Your task to perform on an android device: turn off improve location accuracy Image 0: 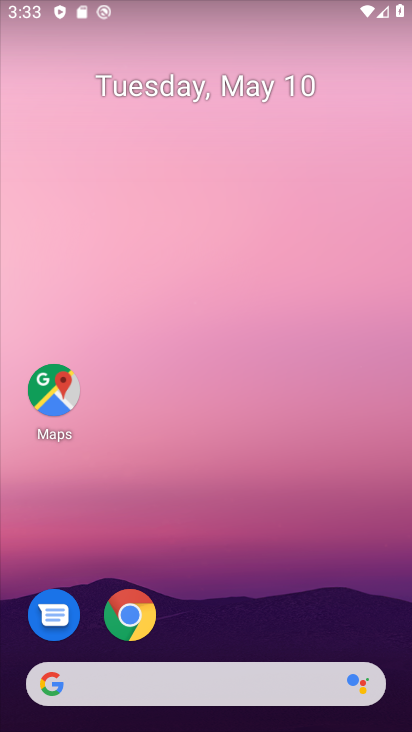
Step 0: drag from (322, 606) to (286, 111)
Your task to perform on an android device: turn off improve location accuracy Image 1: 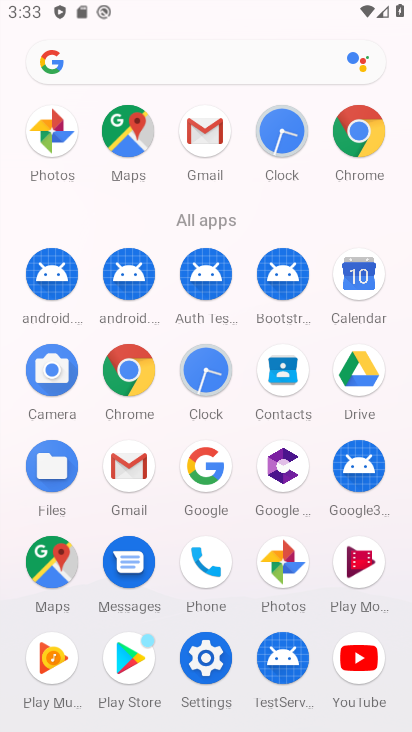
Step 1: click (199, 660)
Your task to perform on an android device: turn off improve location accuracy Image 2: 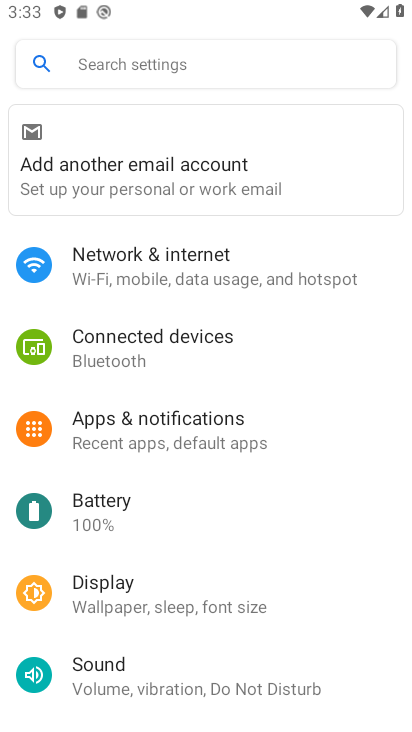
Step 2: drag from (302, 622) to (296, 259)
Your task to perform on an android device: turn off improve location accuracy Image 3: 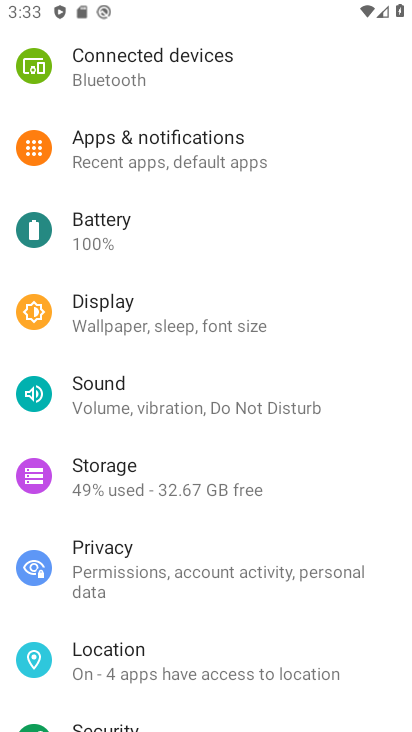
Step 3: click (182, 658)
Your task to perform on an android device: turn off improve location accuracy Image 4: 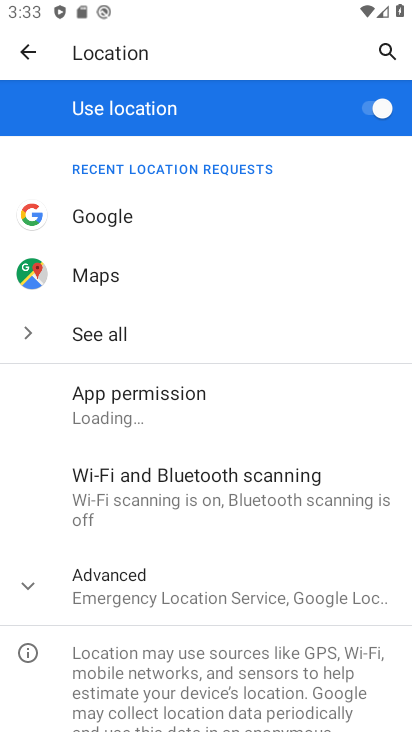
Step 4: drag from (321, 650) to (335, 302)
Your task to perform on an android device: turn off improve location accuracy Image 5: 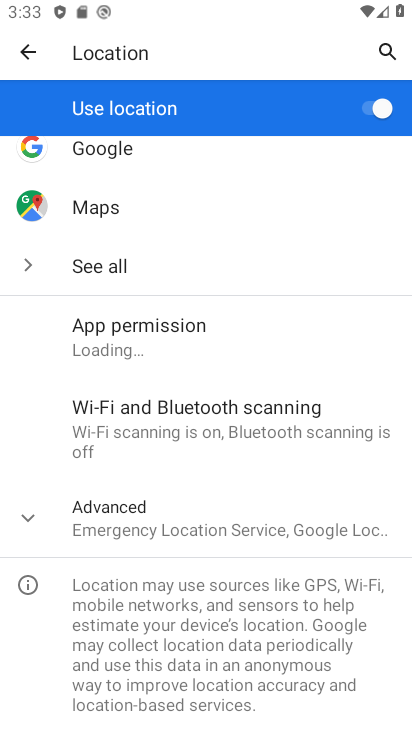
Step 5: click (263, 537)
Your task to perform on an android device: turn off improve location accuracy Image 6: 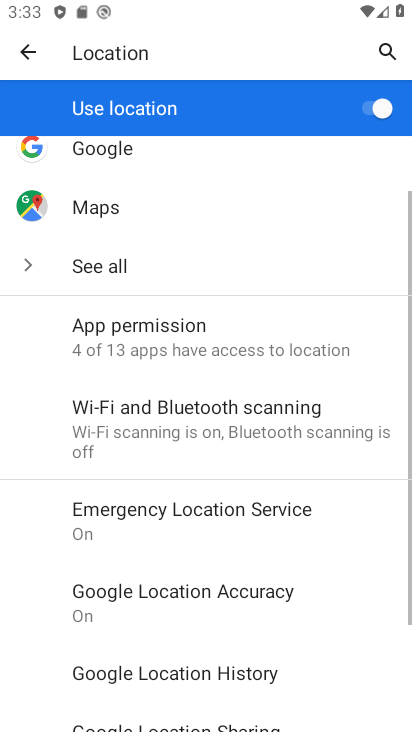
Step 6: drag from (318, 660) to (330, 364)
Your task to perform on an android device: turn off improve location accuracy Image 7: 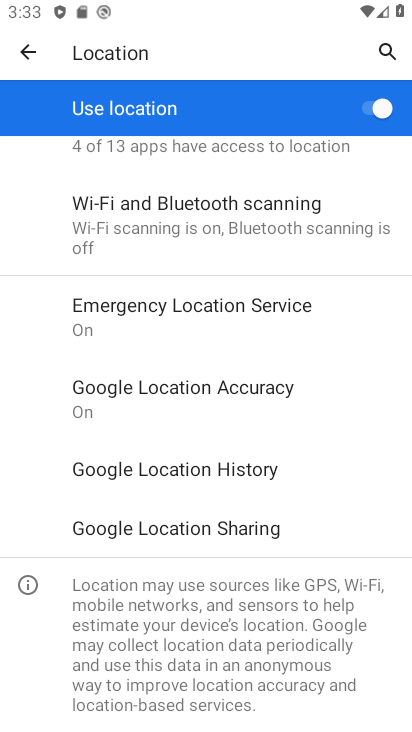
Step 7: click (245, 395)
Your task to perform on an android device: turn off improve location accuracy Image 8: 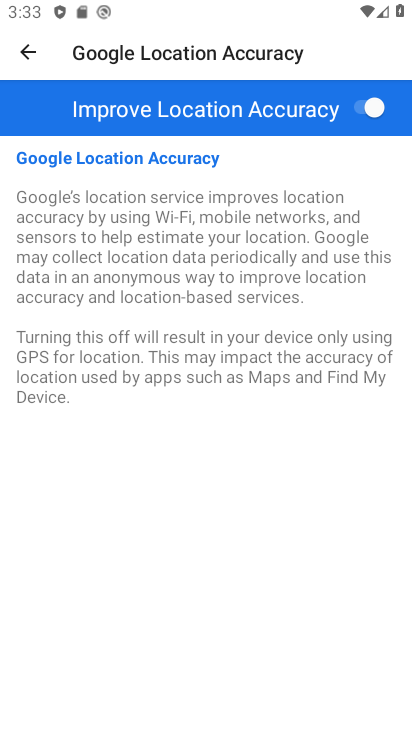
Step 8: click (358, 102)
Your task to perform on an android device: turn off improve location accuracy Image 9: 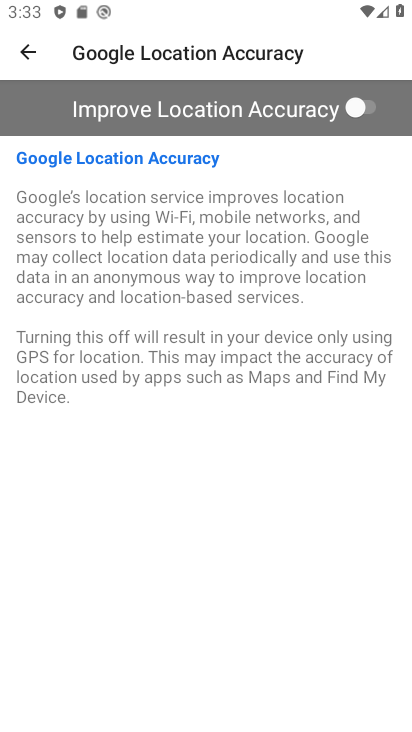
Step 9: task complete